Your task to perform on an android device: Open Google Image 0: 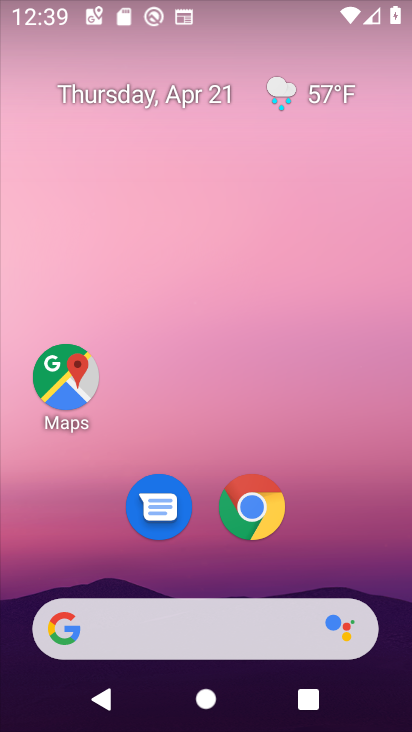
Step 0: drag from (202, 567) to (215, 188)
Your task to perform on an android device: Open Google Image 1: 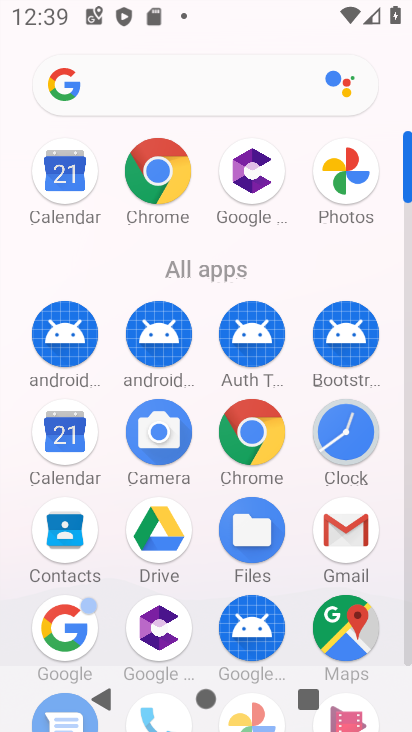
Step 1: drag from (212, 644) to (249, 214)
Your task to perform on an android device: Open Google Image 2: 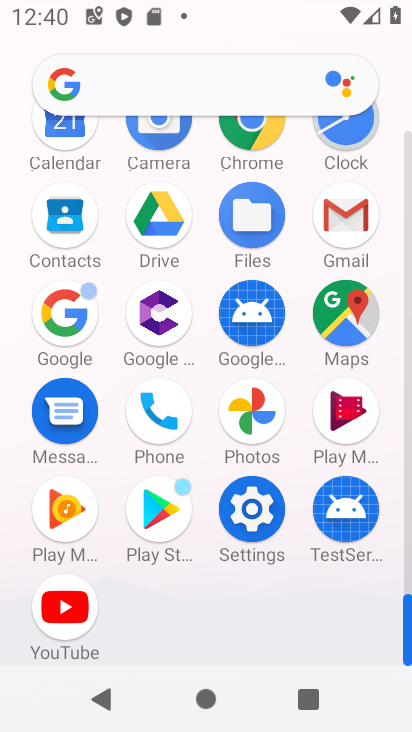
Step 2: click (63, 308)
Your task to perform on an android device: Open Google Image 3: 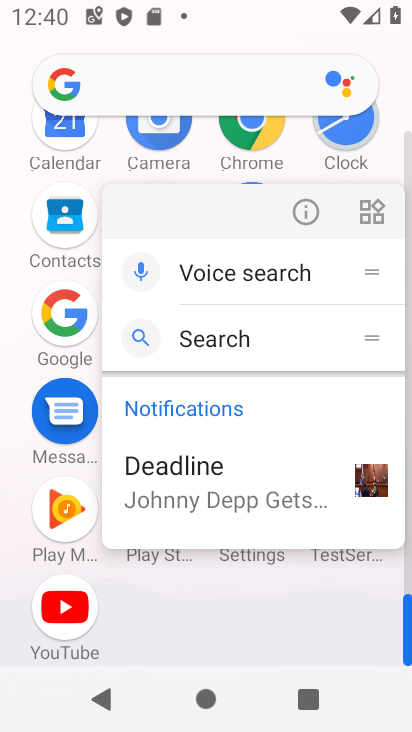
Step 3: click (321, 212)
Your task to perform on an android device: Open Google Image 4: 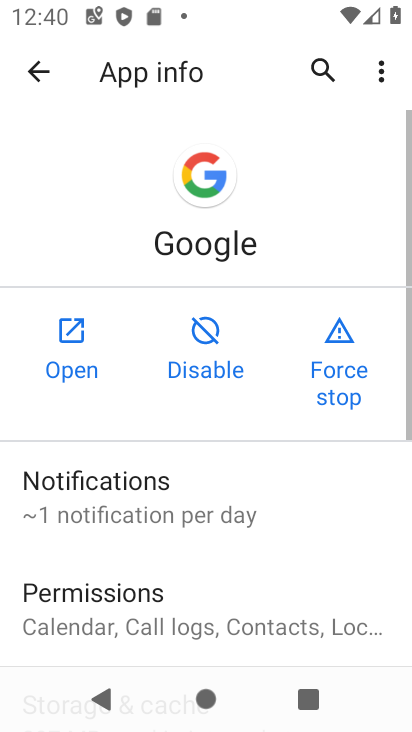
Step 4: click (83, 353)
Your task to perform on an android device: Open Google Image 5: 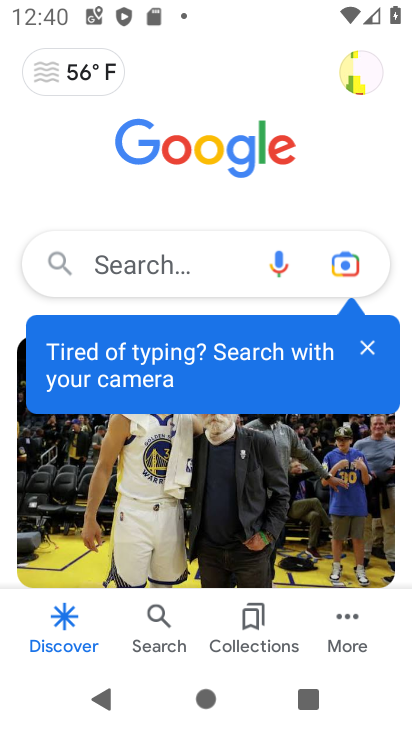
Step 5: task complete